Your task to perform on an android device: Go to Wikipedia Image 0: 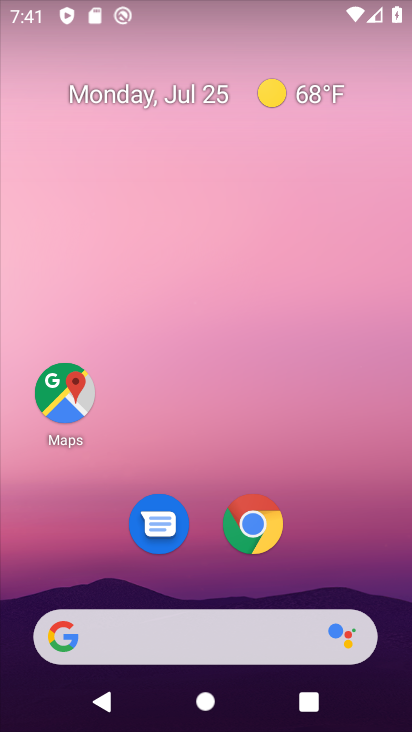
Step 0: click (267, 520)
Your task to perform on an android device: Go to Wikipedia Image 1: 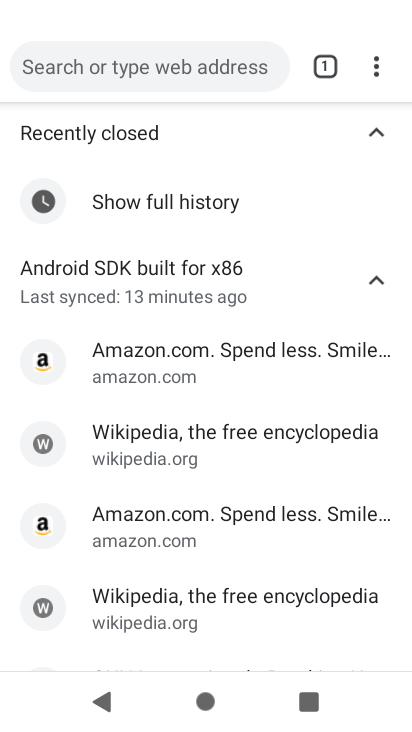
Step 1: click (233, 206)
Your task to perform on an android device: Go to Wikipedia Image 2: 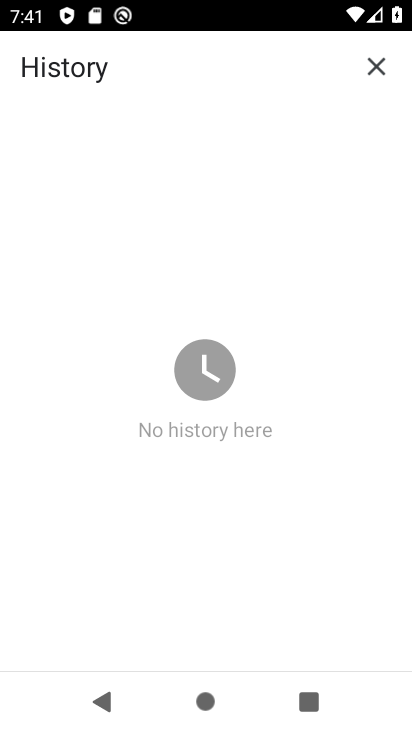
Step 2: press back button
Your task to perform on an android device: Go to Wikipedia Image 3: 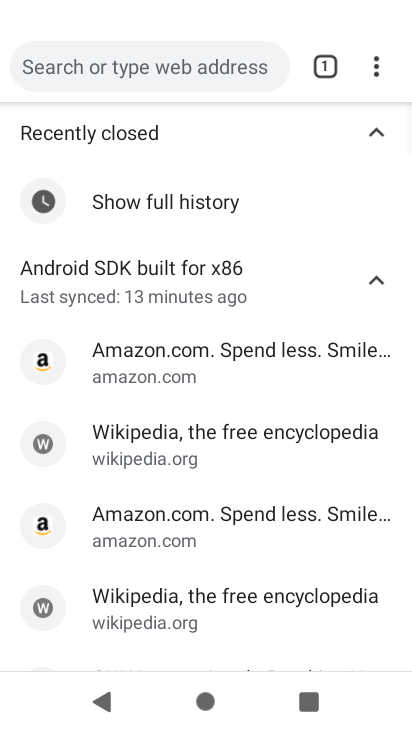
Step 3: press back button
Your task to perform on an android device: Go to Wikipedia Image 4: 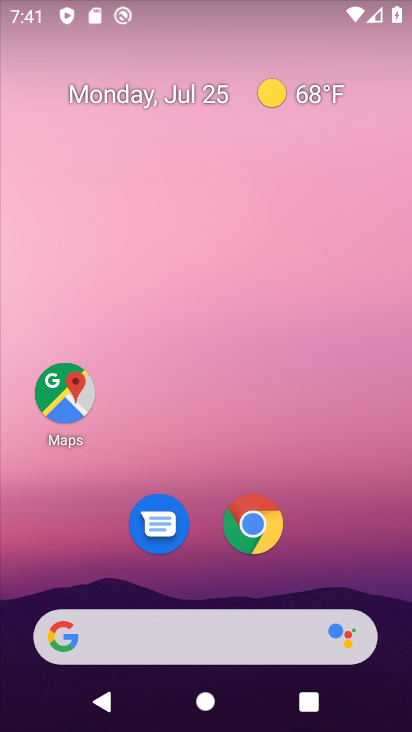
Step 4: click (257, 524)
Your task to perform on an android device: Go to Wikipedia Image 5: 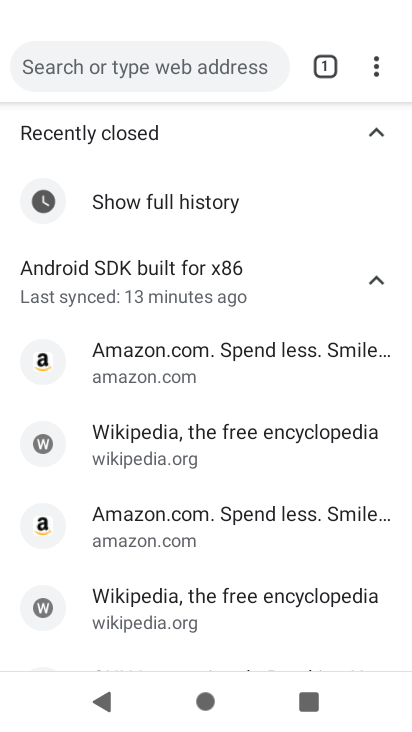
Step 5: click (375, 71)
Your task to perform on an android device: Go to Wikipedia Image 6: 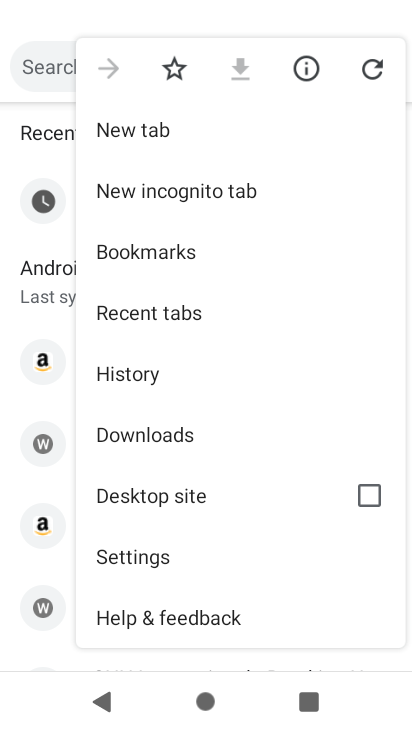
Step 6: click (166, 128)
Your task to perform on an android device: Go to Wikipedia Image 7: 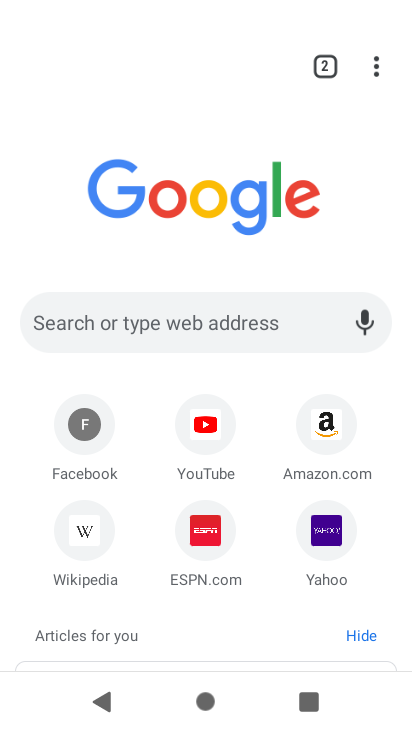
Step 7: click (87, 522)
Your task to perform on an android device: Go to Wikipedia Image 8: 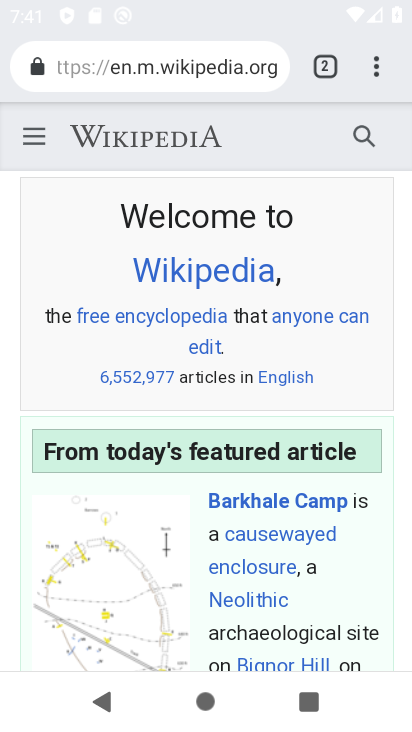
Step 8: task complete